Your task to perform on an android device: Open Google Chrome Image 0: 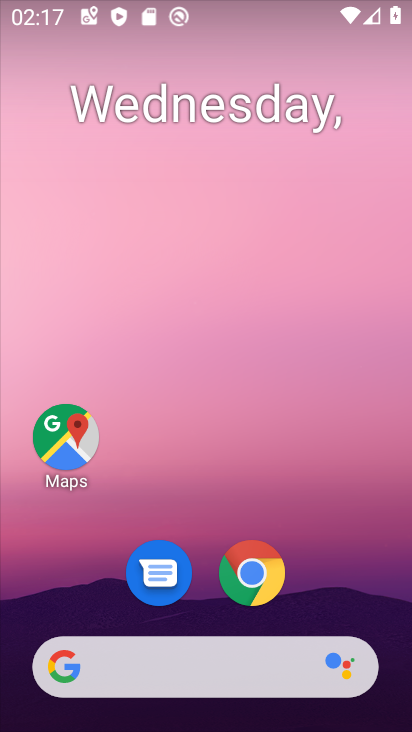
Step 0: click (250, 571)
Your task to perform on an android device: Open Google Chrome Image 1: 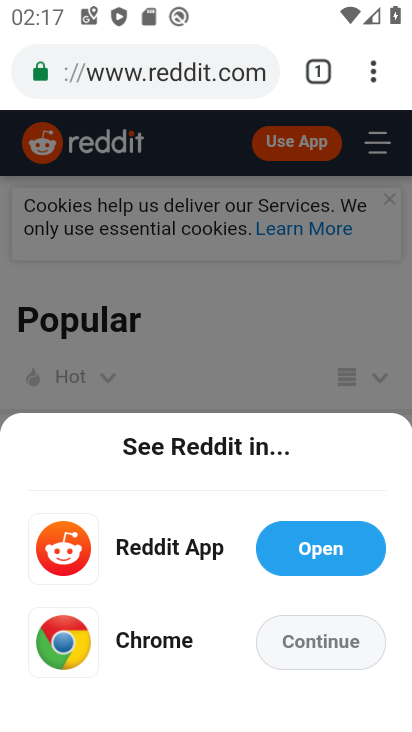
Step 1: task complete